Your task to perform on an android device: toggle airplane mode Image 0: 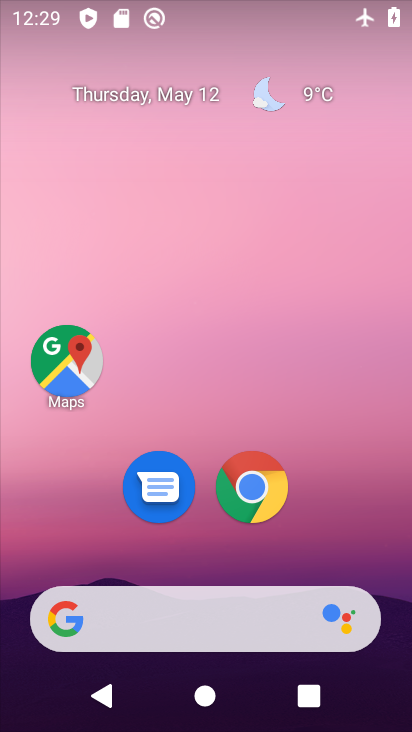
Step 0: drag from (397, 596) to (250, 11)
Your task to perform on an android device: toggle airplane mode Image 1: 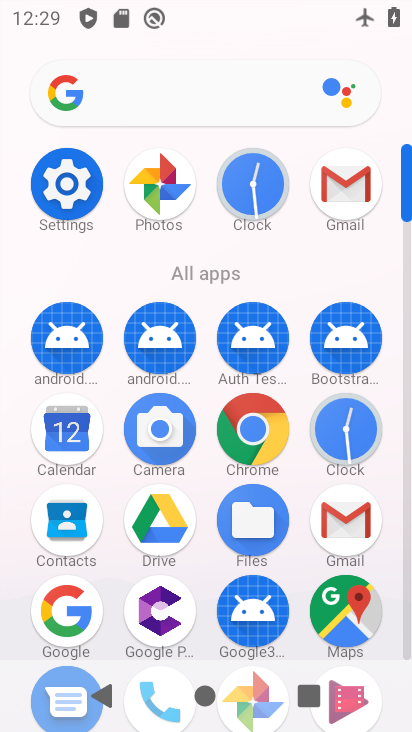
Step 1: click (406, 647)
Your task to perform on an android device: toggle airplane mode Image 2: 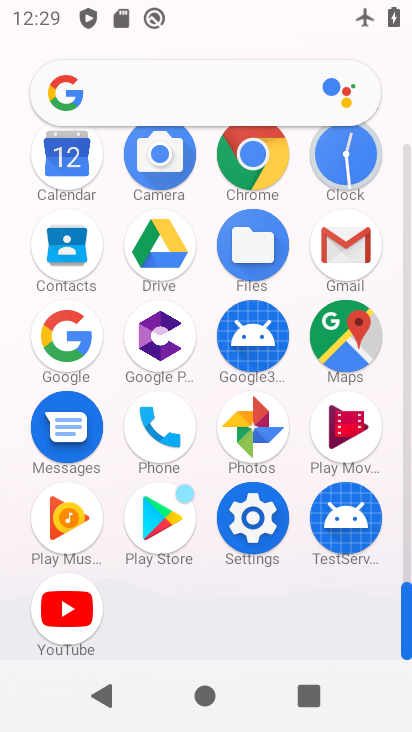
Step 2: click (346, 243)
Your task to perform on an android device: toggle airplane mode Image 3: 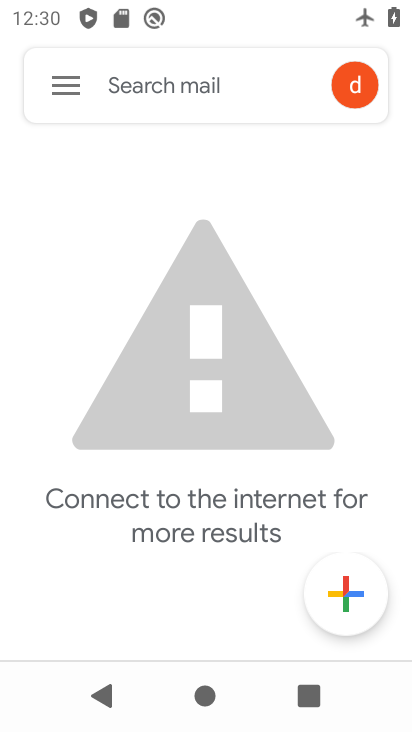
Step 3: press home button
Your task to perform on an android device: toggle airplane mode Image 4: 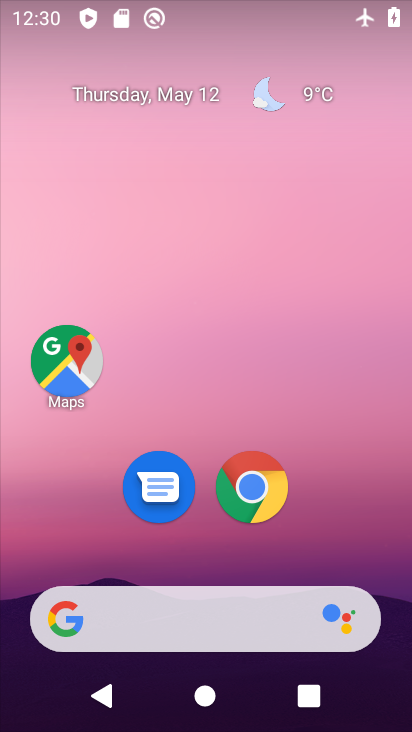
Step 4: drag from (396, 607) to (325, 110)
Your task to perform on an android device: toggle airplane mode Image 5: 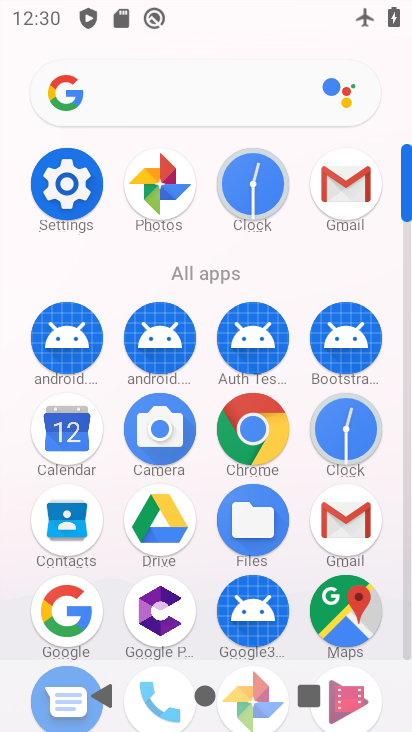
Step 5: click (406, 641)
Your task to perform on an android device: toggle airplane mode Image 6: 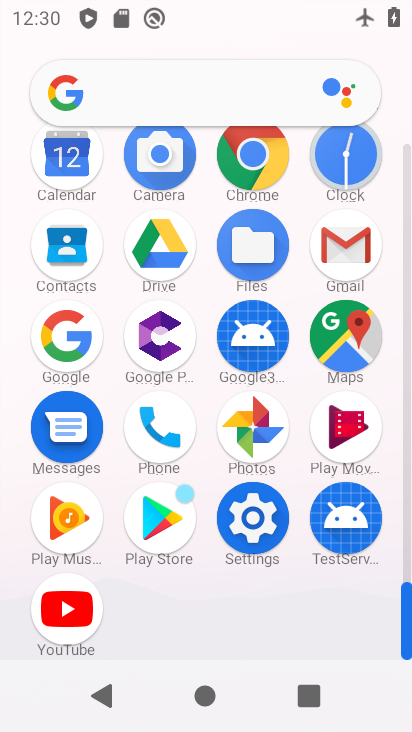
Step 6: click (252, 516)
Your task to perform on an android device: toggle airplane mode Image 7: 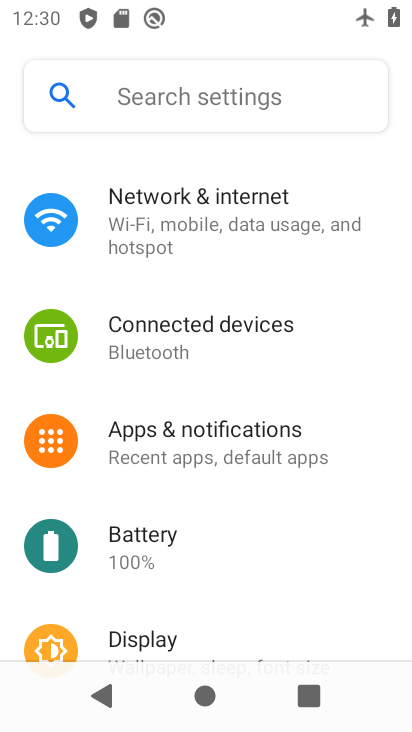
Step 7: click (195, 217)
Your task to perform on an android device: toggle airplane mode Image 8: 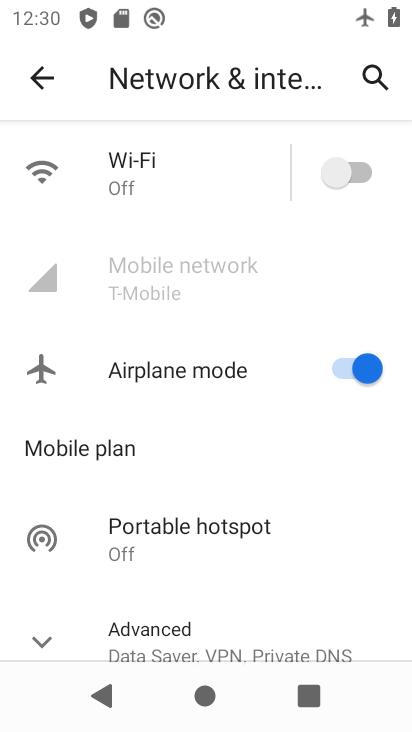
Step 8: click (337, 357)
Your task to perform on an android device: toggle airplane mode Image 9: 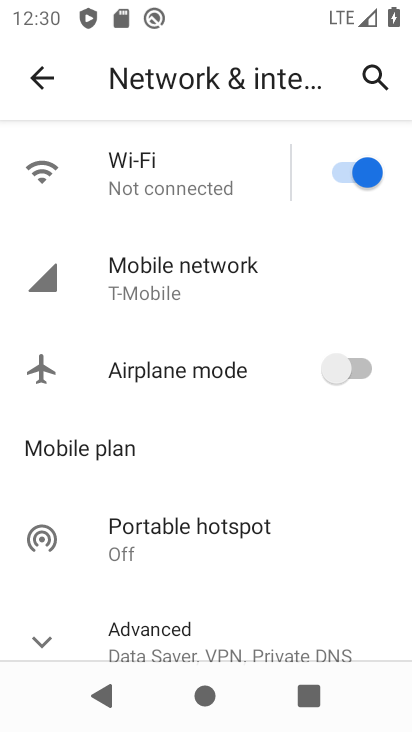
Step 9: task complete